Your task to perform on an android device: Open the calendar app, open the side menu, and click the "Day" option Image 0: 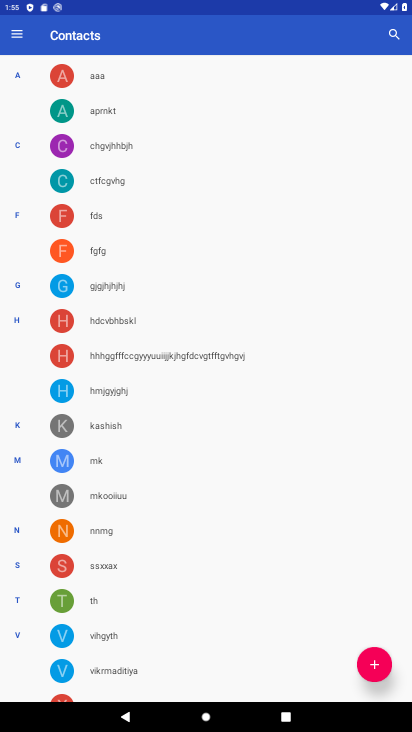
Step 0: press home button
Your task to perform on an android device: Open the calendar app, open the side menu, and click the "Day" option Image 1: 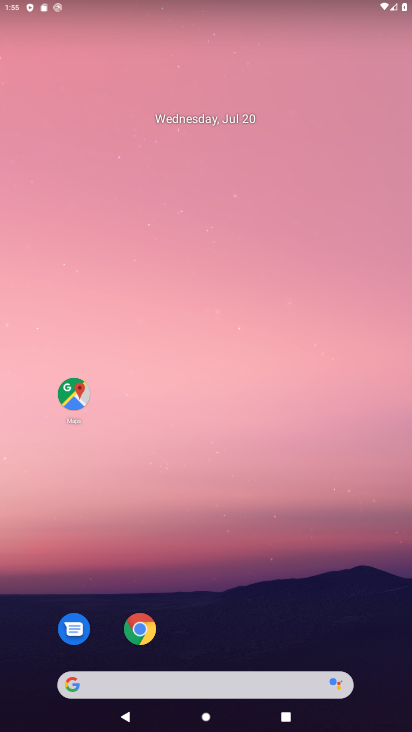
Step 1: drag from (172, 683) to (253, 85)
Your task to perform on an android device: Open the calendar app, open the side menu, and click the "Day" option Image 2: 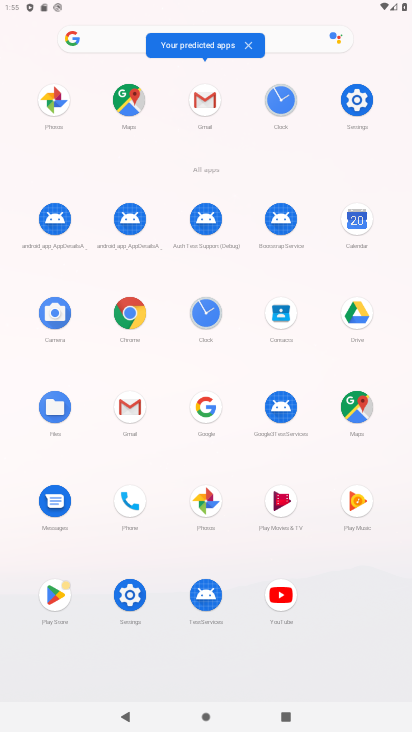
Step 2: click (359, 220)
Your task to perform on an android device: Open the calendar app, open the side menu, and click the "Day" option Image 3: 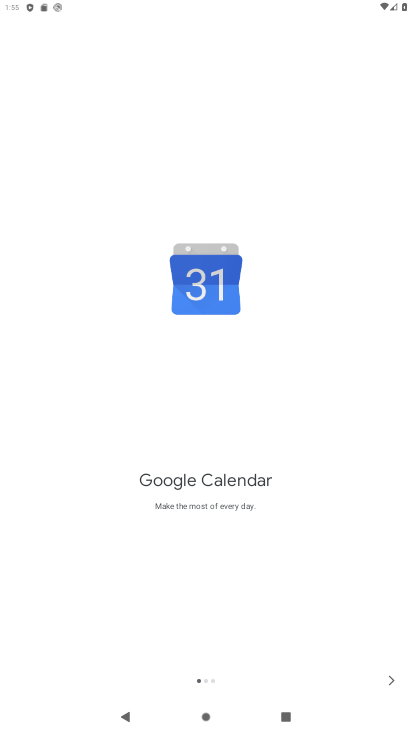
Step 3: click (392, 679)
Your task to perform on an android device: Open the calendar app, open the side menu, and click the "Day" option Image 4: 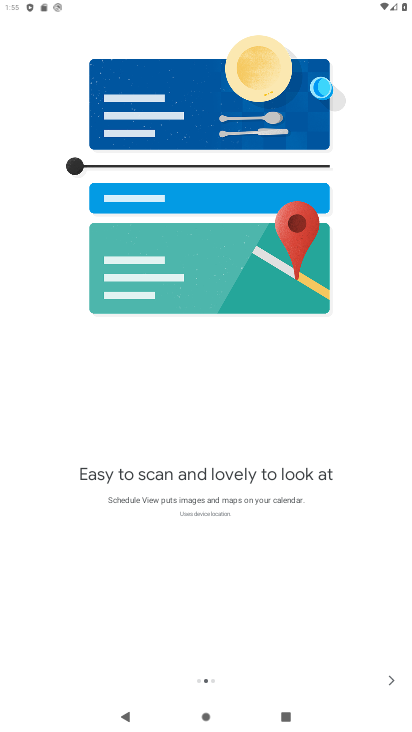
Step 4: click (392, 679)
Your task to perform on an android device: Open the calendar app, open the side menu, and click the "Day" option Image 5: 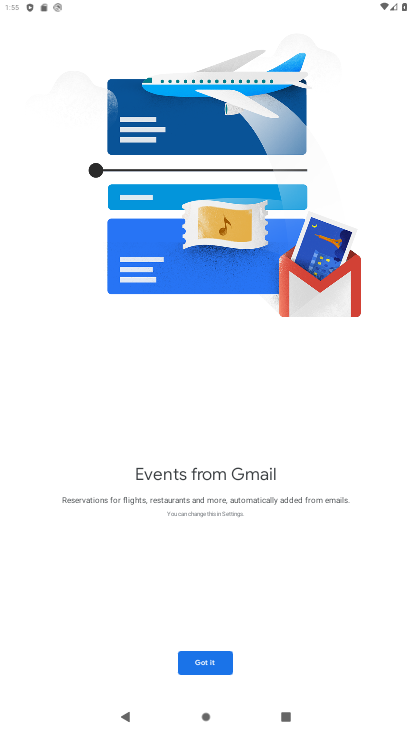
Step 5: click (205, 659)
Your task to perform on an android device: Open the calendar app, open the side menu, and click the "Day" option Image 6: 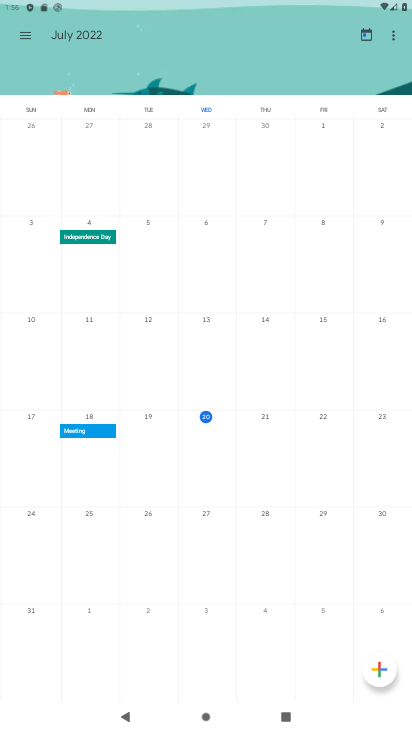
Step 6: click (21, 35)
Your task to perform on an android device: Open the calendar app, open the side menu, and click the "Day" option Image 7: 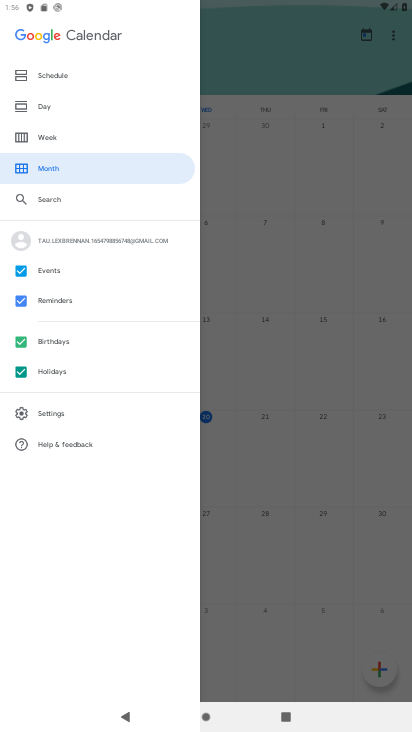
Step 7: click (44, 111)
Your task to perform on an android device: Open the calendar app, open the side menu, and click the "Day" option Image 8: 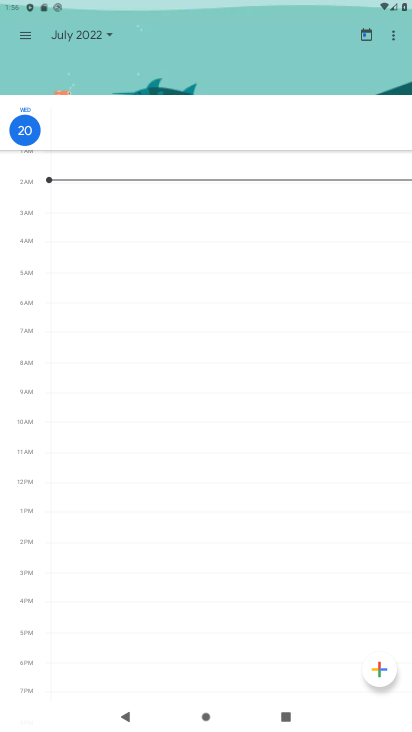
Step 8: task complete